Your task to perform on an android device: change notifications settings Image 0: 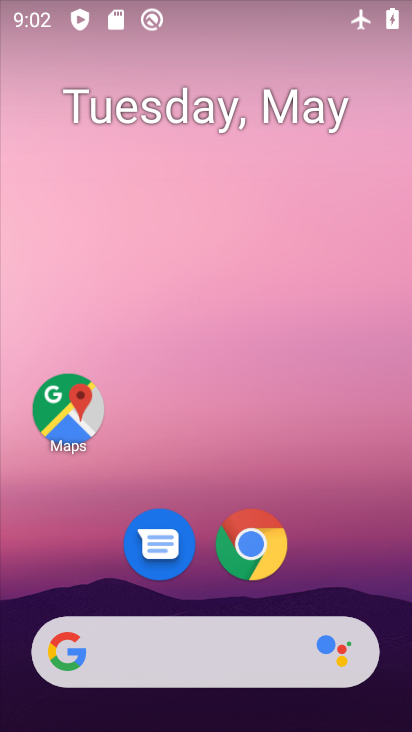
Step 0: drag from (354, 553) to (350, 229)
Your task to perform on an android device: change notifications settings Image 1: 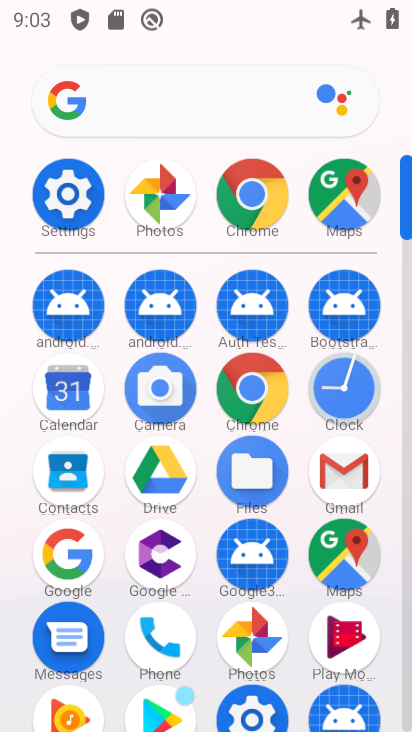
Step 1: click (74, 201)
Your task to perform on an android device: change notifications settings Image 2: 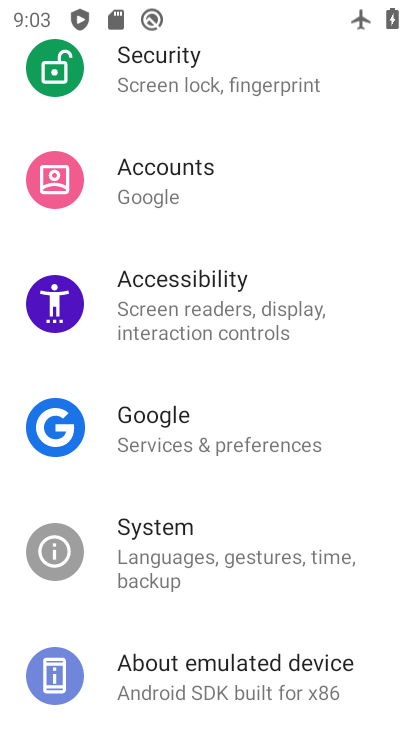
Step 2: drag from (278, 249) to (287, 611)
Your task to perform on an android device: change notifications settings Image 3: 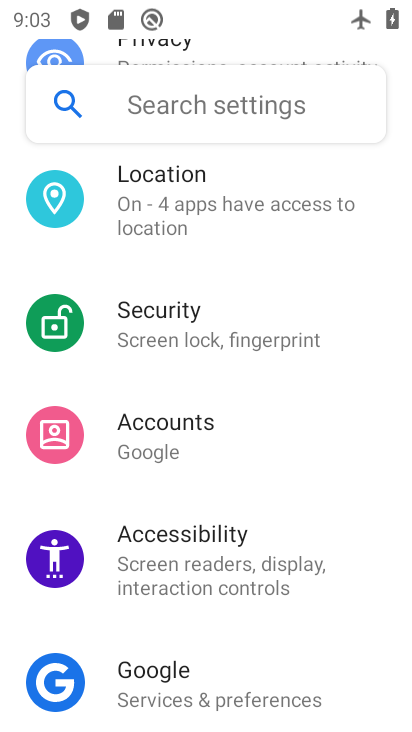
Step 3: drag from (300, 245) to (302, 546)
Your task to perform on an android device: change notifications settings Image 4: 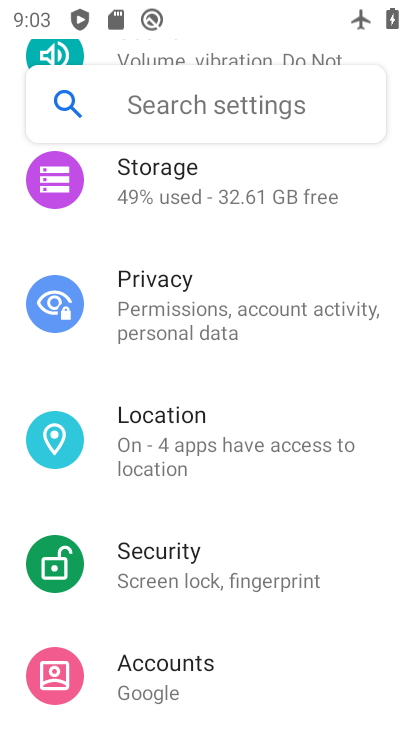
Step 4: drag from (266, 271) to (280, 644)
Your task to perform on an android device: change notifications settings Image 5: 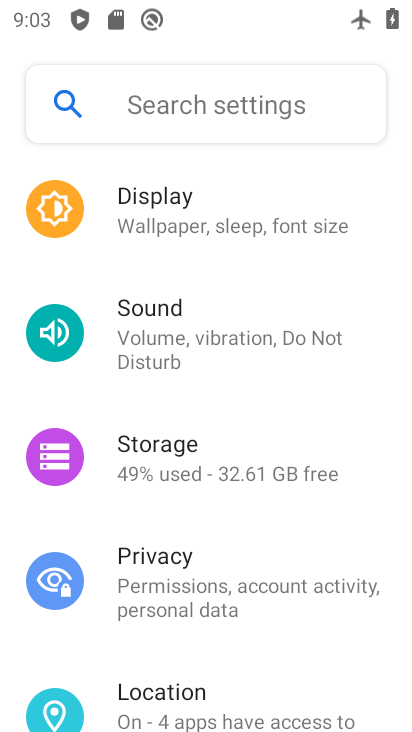
Step 5: drag from (269, 316) to (273, 572)
Your task to perform on an android device: change notifications settings Image 6: 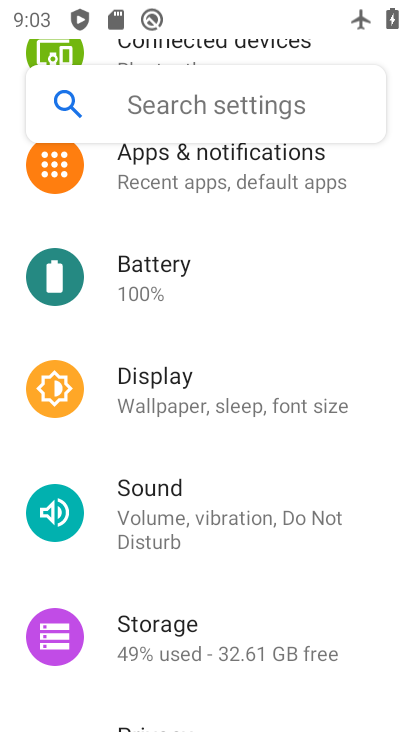
Step 6: click (247, 175)
Your task to perform on an android device: change notifications settings Image 7: 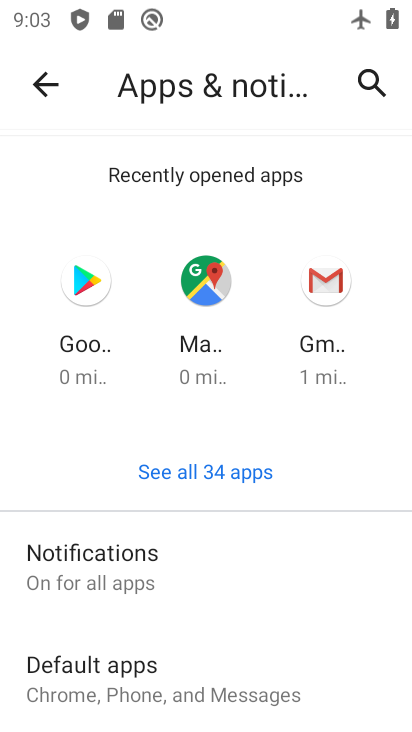
Step 7: click (172, 574)
Your task to perform on an android device: change notifications settings Image 8: 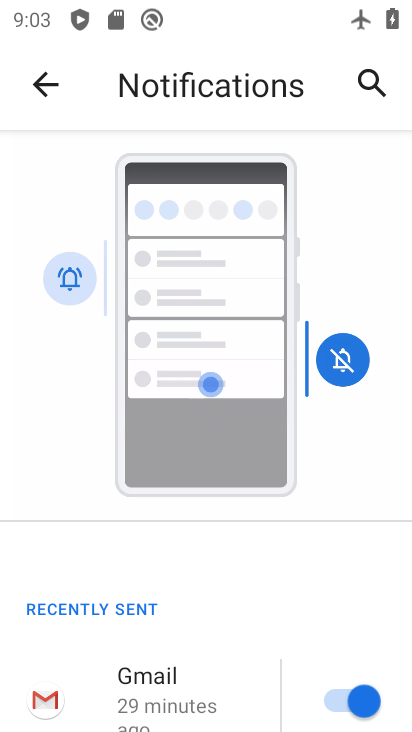
Step 8: drag from (188, 586) to (268, 189)
Your task to perform on an android device: change notifications settings Image 9: 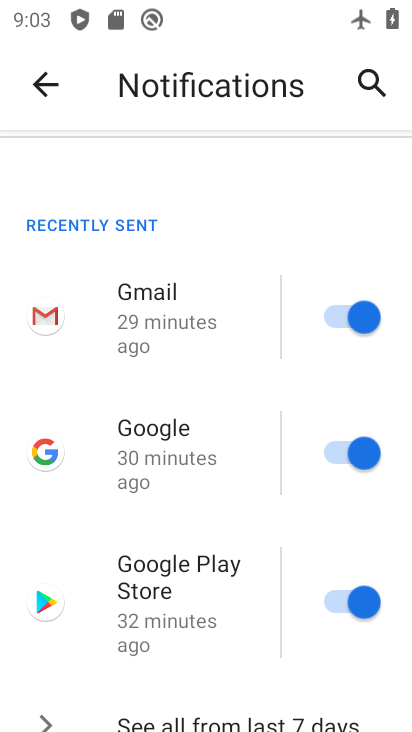
Step 9: drag from (206, 647) to (225, 241)
Your task to perform on an android device: change notifications settings Image 10: 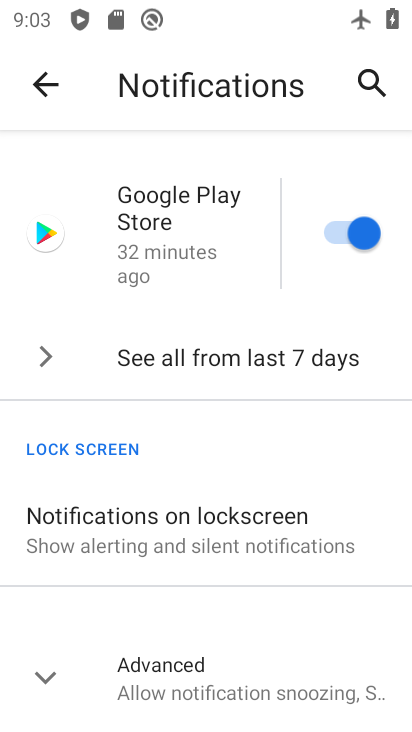
Step 10: drag from (231, 631) to (237, 406)
Your task to perform on an android device: change notifications settings Image 11: 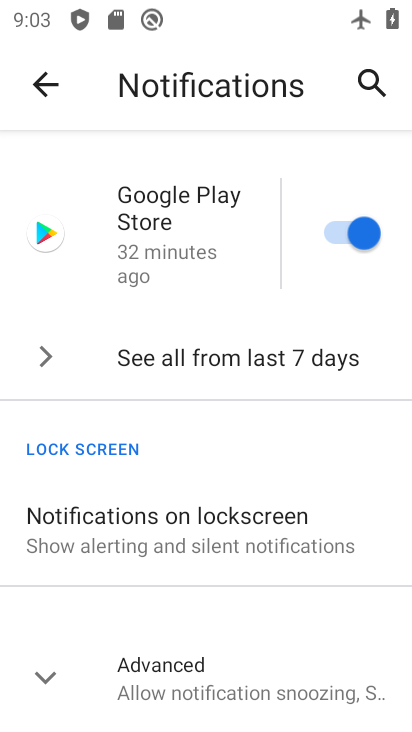
Step 11: drag from (207, 261) to (194, 529)
Your task to perform on an android device: change notifications settings Image 12: 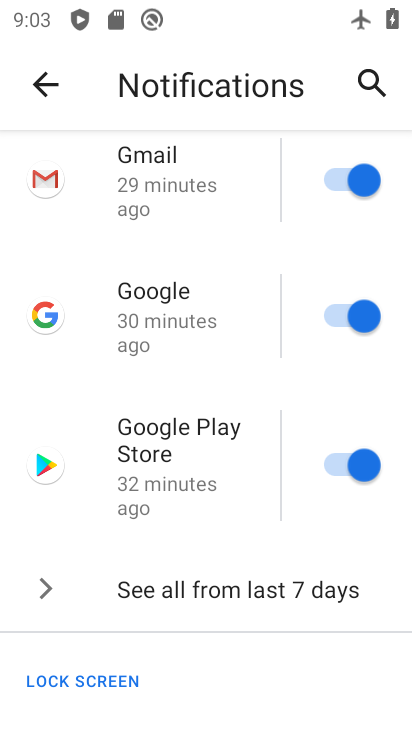
Step 12: click (334, 185)
Your task to perform on an android device: change notifications settings Image 13: 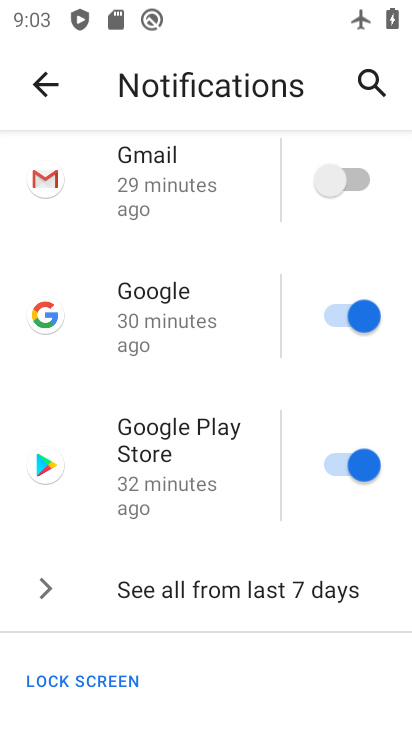
Step 13: task complete